Your task to perform on an android device: Show me popular games on the Play Store Image 0: 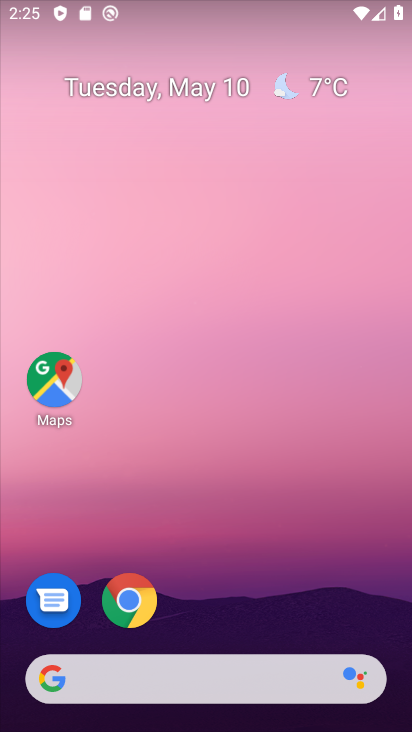
Step 0: click (141, 600)
Your task to perform on an android device: Show me popular games on the Play Store Image 1: 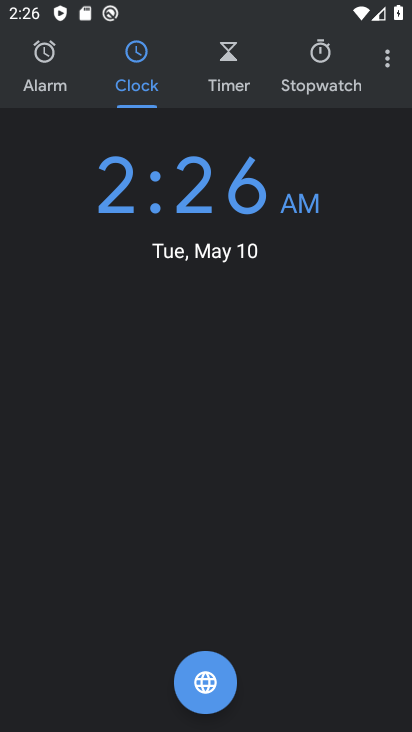
Step 1: press home button
Your task to perform on an android device: Show me popular games on the Play Store Image 2: 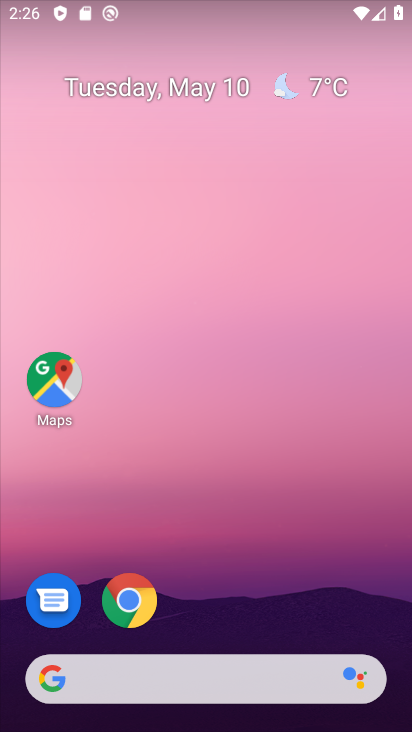
Step 2: drag from (235, 658) to (201, 245)
Your task to perform on an android device: Show me popular games on the Play Store Image 3: 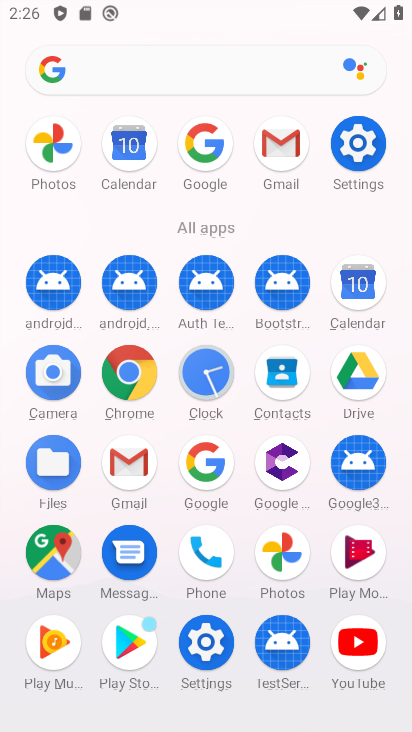
Step 3: click (143, 639)
Your task to perform on an android device: Show me popular games on the Play Store Image 4: 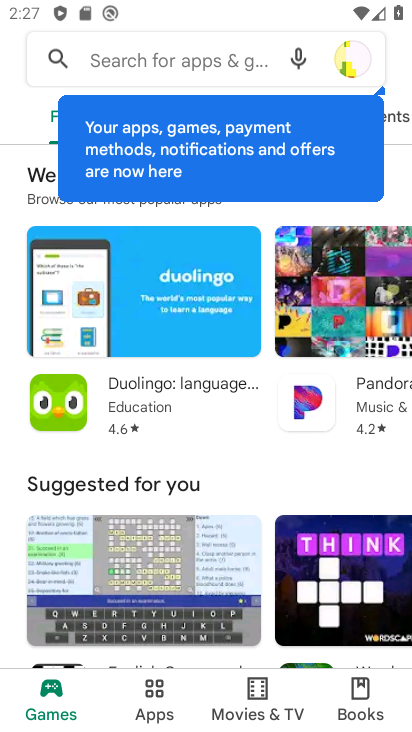
Step 4: drag from (254, 475) to (238, 115)
Your task to perform on an android device: Show me popular games on the Play Store Image 5: 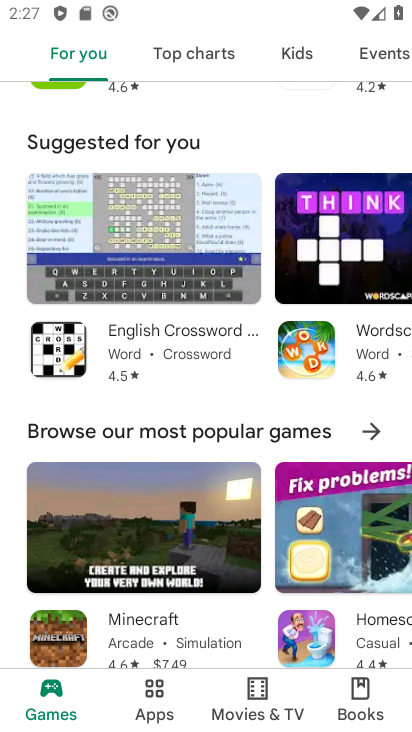
Step 5: click (348, 428)
Your task to perform on an android device: Show me popular games on the Play Store Image 6: 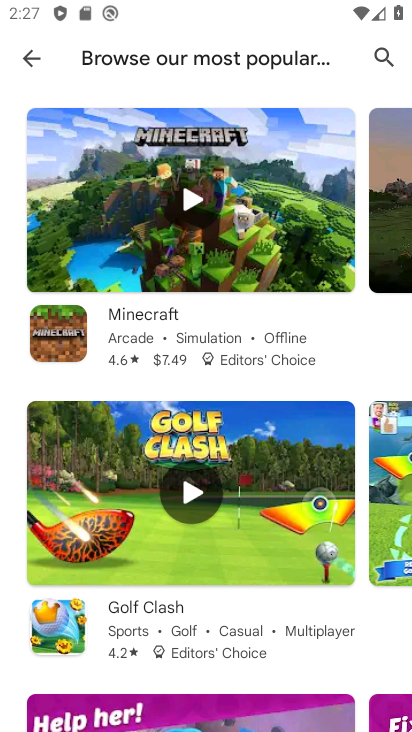
Step 6: task complete